Your task to perform on an android device: show emergency info Image 0: 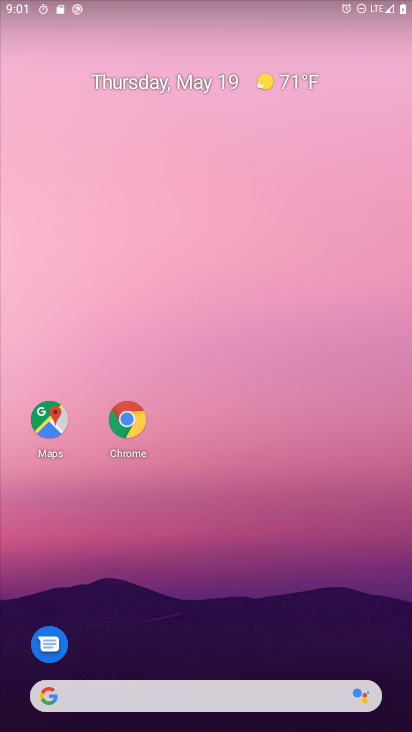
Step 0: drag from (188, 677) to (236, 175)
Your task to perform on an android device: show emergency info Image 1: 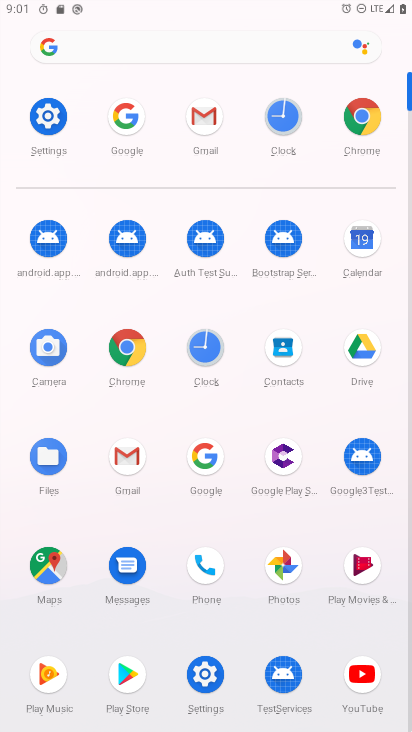
Step 1: click (30, 124)
Your task to perform on an android device: show emergency info Image 2: 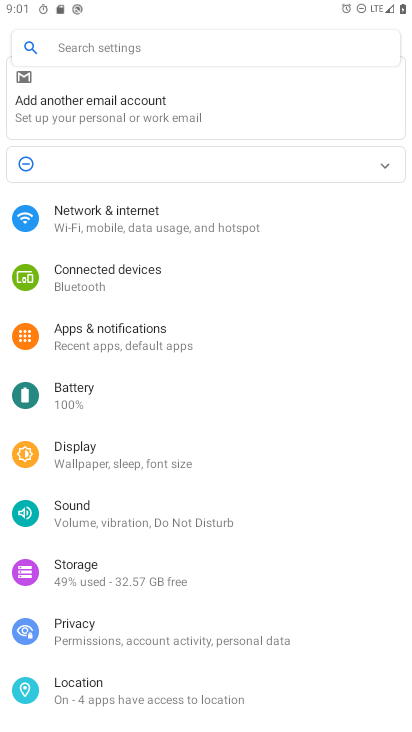
Step 2: drag from (110, 702) to (206, 210)
Your task to perform on an android device: show emergency info Image 3: 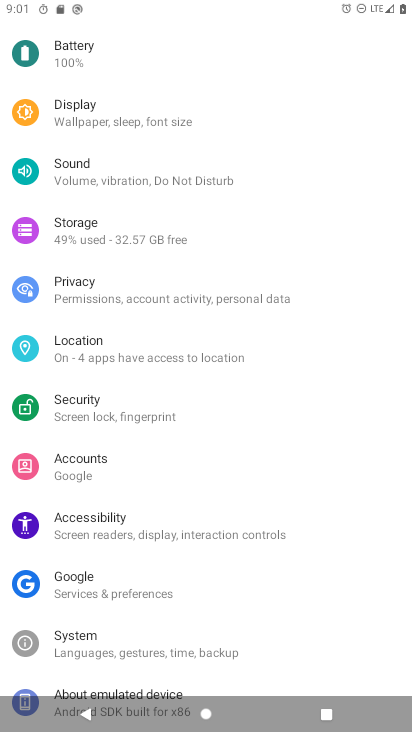
Step 3: drag from (113, 643) to (141, 315)
Your task to perform on an android device: show emergency info Image 4: 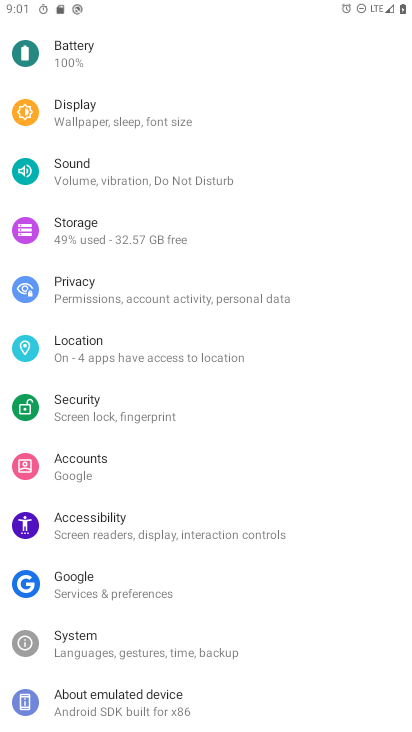
Step 4: click (121, 686)
Your task to perform on an android device: show emergency info Image 5: 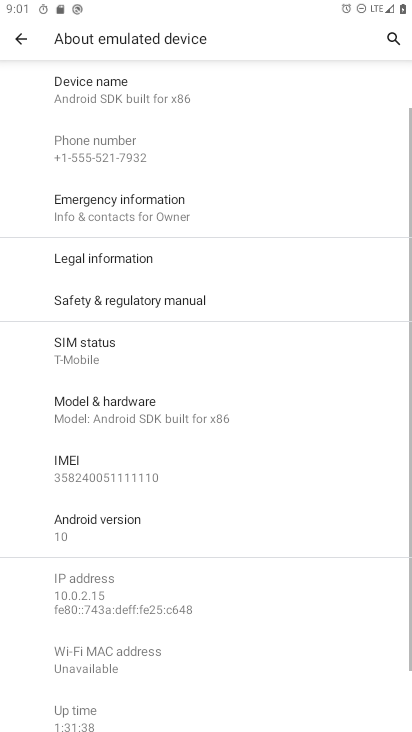
Step 5: click (129, 197)
Your task to perform on an android device: show emergency info Image 6: 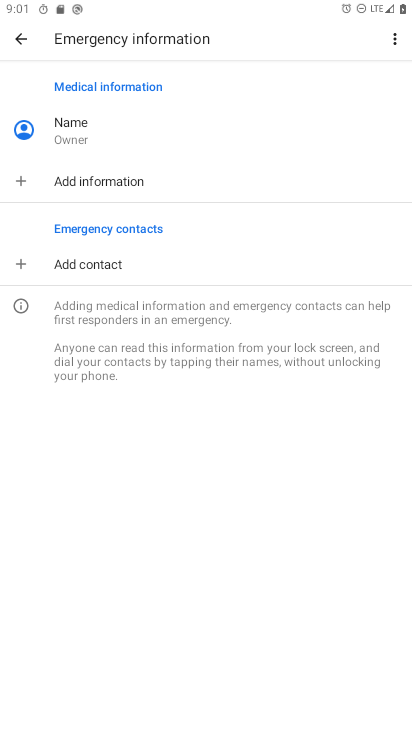
Step 6: task complete